Your task to perform on an android device: turn off sleep mode Image 0: 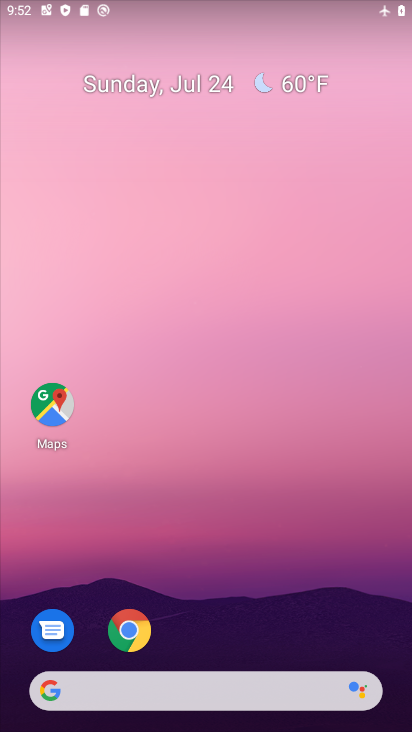
Step 0: drag from (204, 659) to (268, 3)
Your task to perform on an android device: turn off sleep mode Image 1: 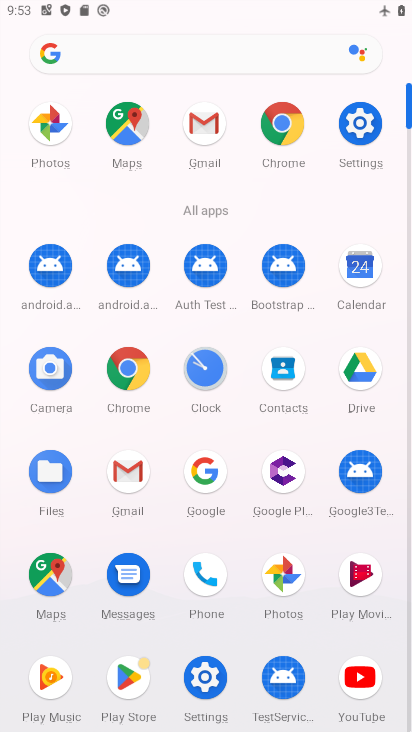
Step 1: click (125, 479)
Your task to perform on an android device: turn off sleep mode Image 2: 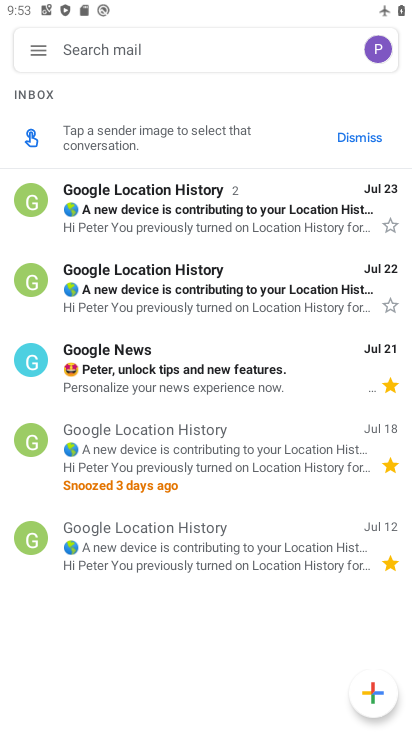
Step 2: press home button
Your task to perform on an android device: turn off sleep mode Image 3: 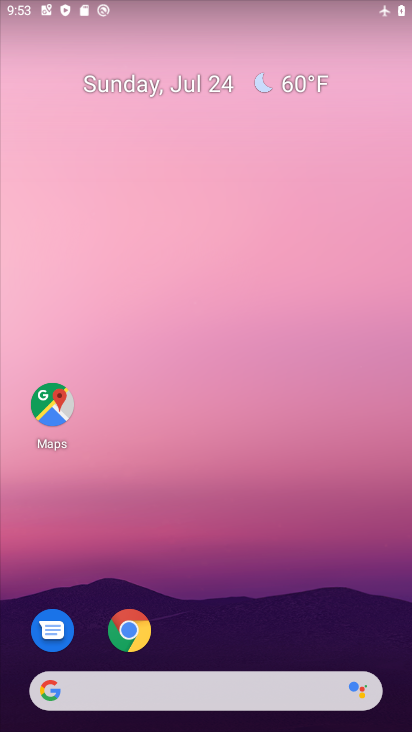
Step 3: drag from (232, 661) to (270, 276)
Your task to perform on an android device: turn off sleep mode Image 4: 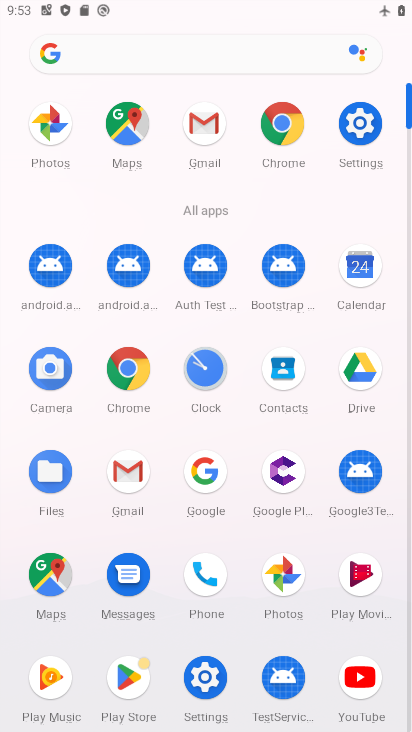
Step 4: click (206, 667)
Your task to perform on an android device: turn off sleep mode Image 5: 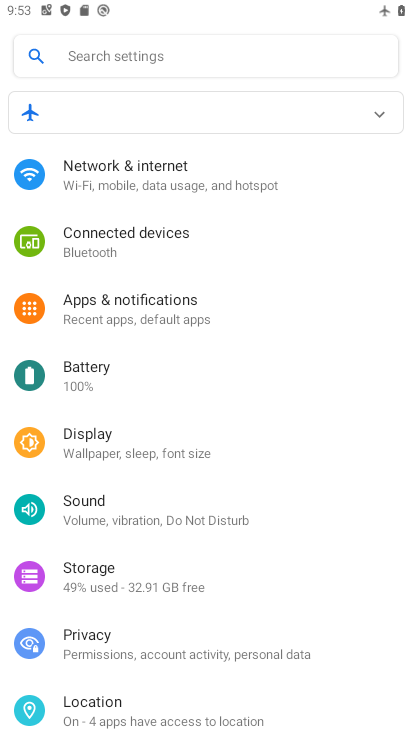
Step 5: click (163, 66)
Your task to perform on an android device: turn off sleep mode Image 6: 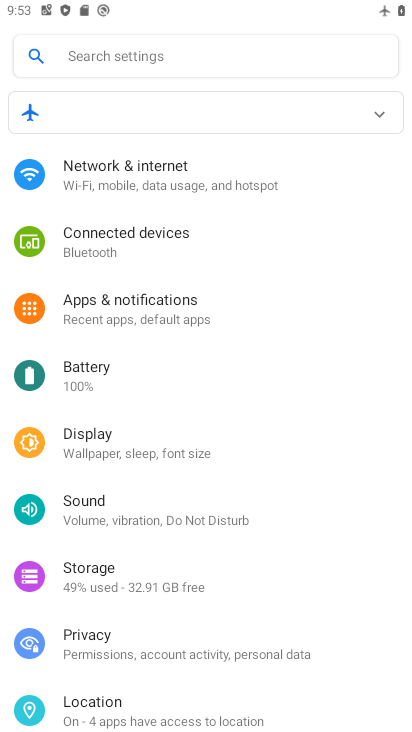
Step 6: type ""
Your task to perform on an android device: turn off sleep mode Image 7: 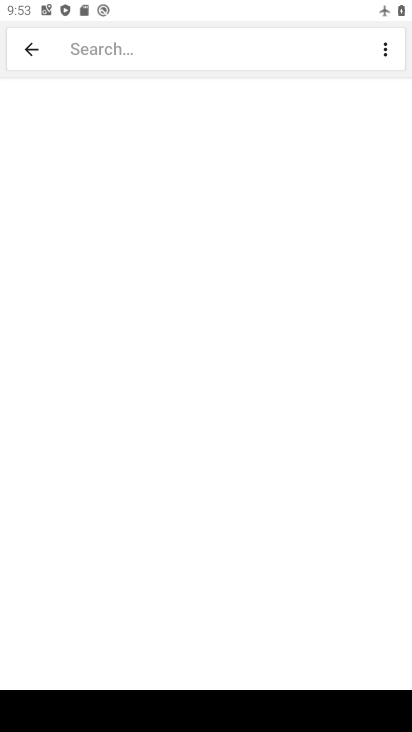
Step 7: type "sleep mode"
Your task to perform on an android device: turn off sleep mode Image 8: 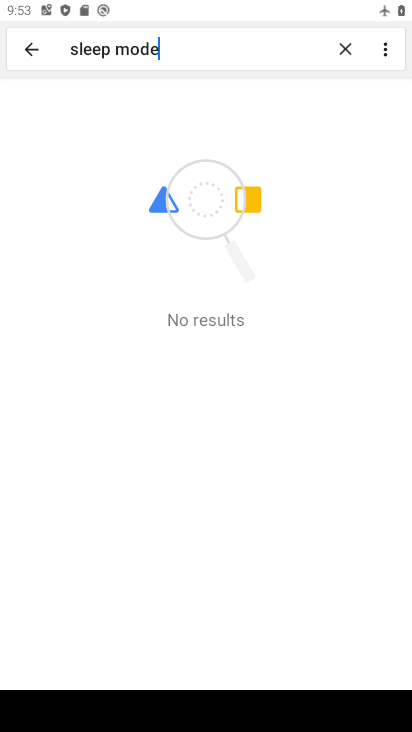
Step 8: task complete